Your task to perform on an android device: empty trash in google photos Image 0: 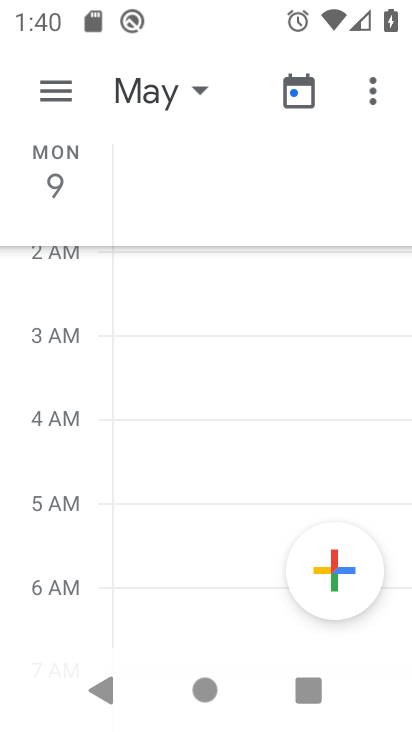
Step 0: press home button
Your task to perform on an android device: empty trash in google photos Image 1: 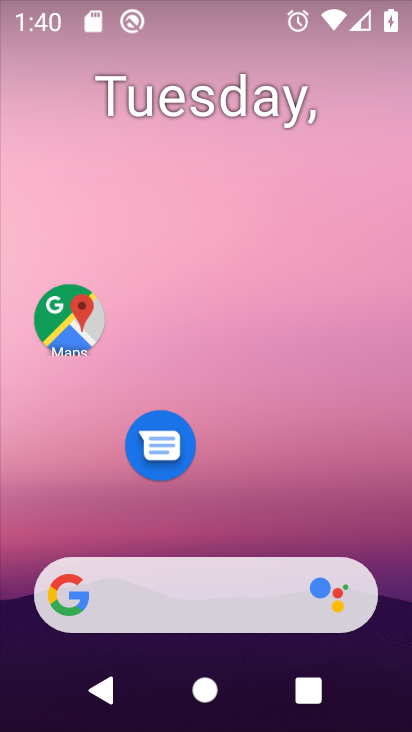
Step 1: drag from (305, 450) to (150, 29)
Your task to perform on an android device: empty trash in google photos Image 2: 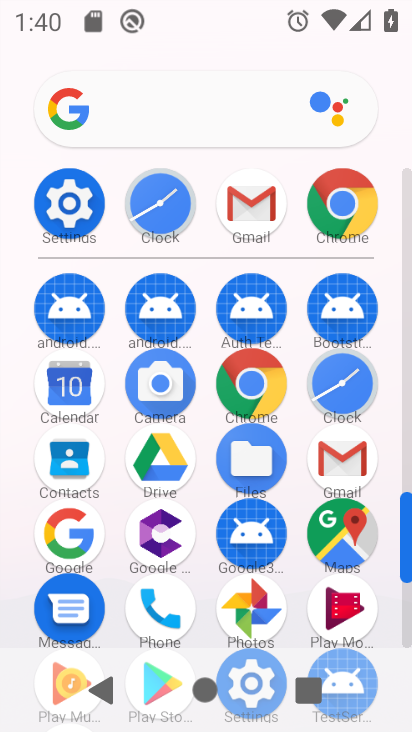
Step 2: click (245, 590)
Your task to perform on an android device: empty trash in google photos Image 3: 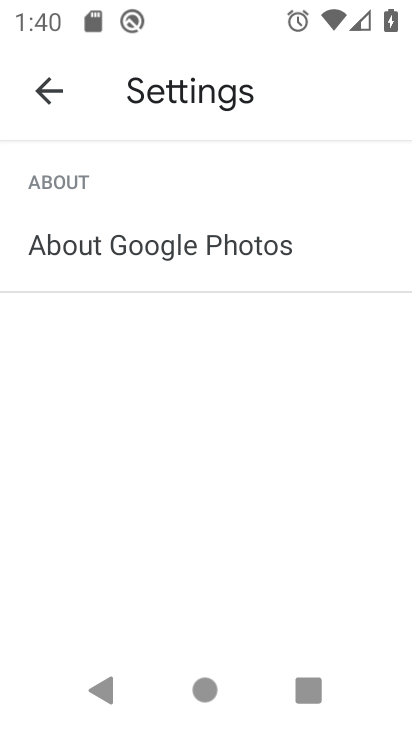
Step 3: click (47, 94)
Your task to perform on an android device: empty trash in google photos Image 4: 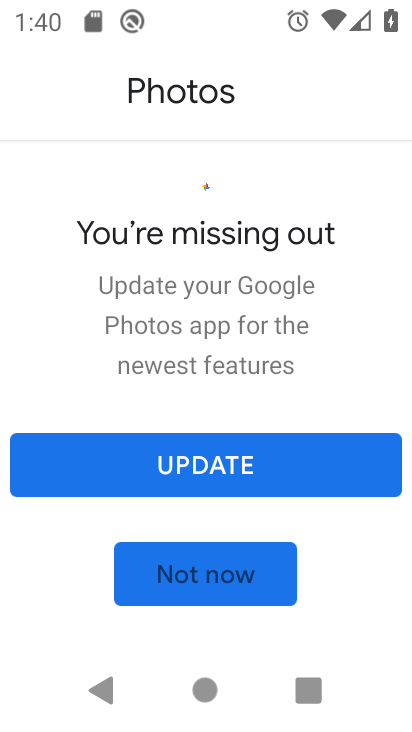
Step 4: click (210, 461)
Your task to perform on an android device: empty trash in google photos Image 5: 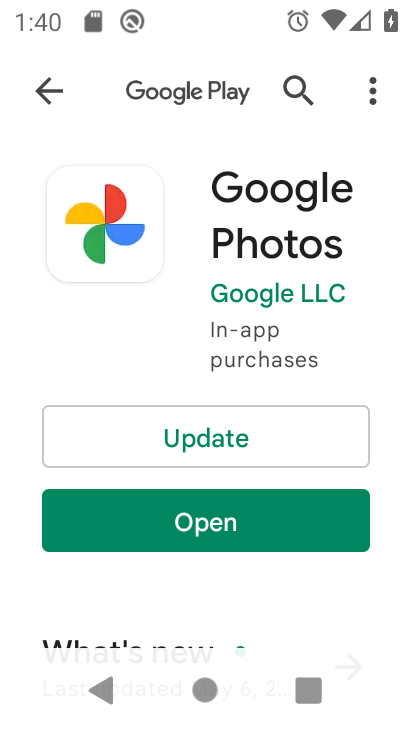
Step 5: click (210, 461)
Your task to perform on an android device: empty trash in google photos Image 6: 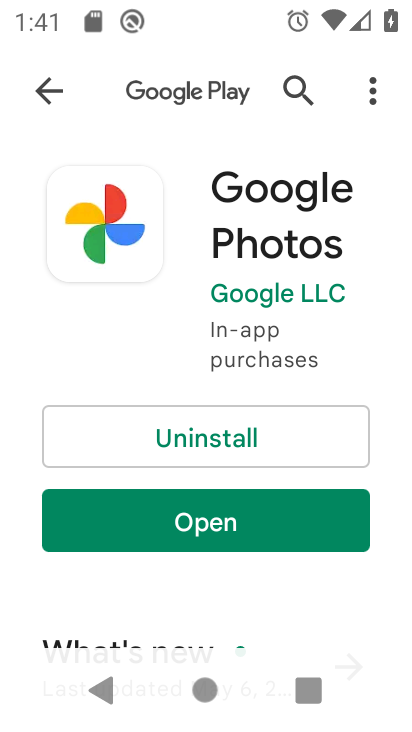
Step 6: click (237, 517)
Your task to perform on an android device: empty trash in google photos Image 7: 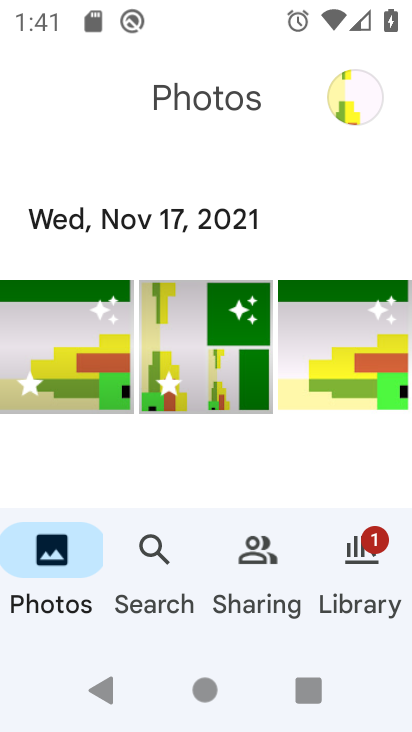
Step 7: click (376, 544)
Your task to perform on an android device: empty trash in google photos Image 8: 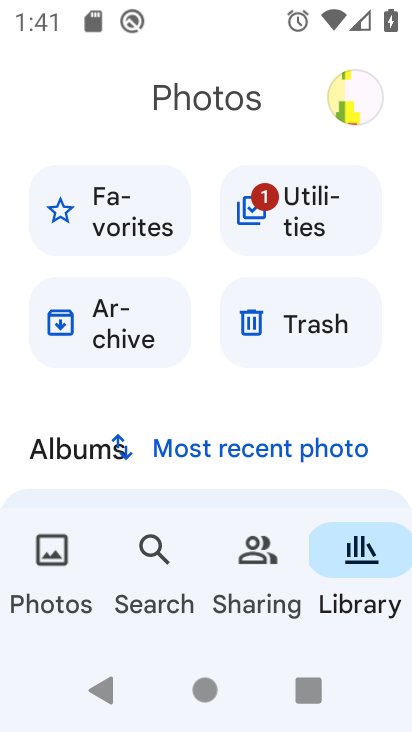
Step 8: drag from (145, 407) to (117, 229)
Your task to perform on an android device: empty trash in google photos Image 9: 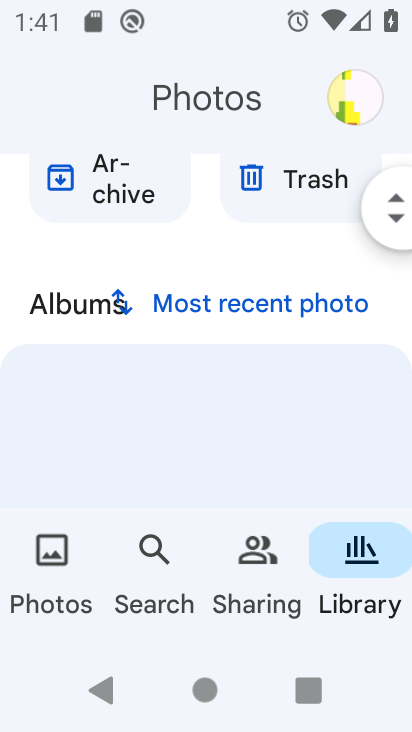
Step 9: click (296, 173)
Your task to perform on an android device: empty trash in google photos Image 10: 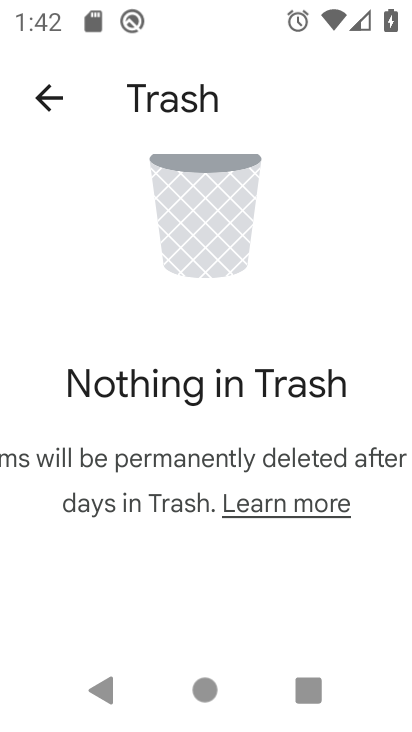
Step 10: task complete